Your task to perform on an android device: turn on priority inbox in the gmail app Image 0: 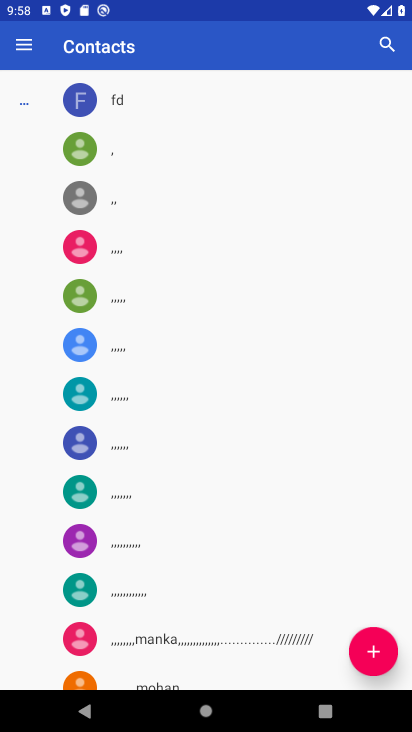
Step 0: press home button
Your task to perform on an android device: turn on priority inbox in the gmail app Image 1: 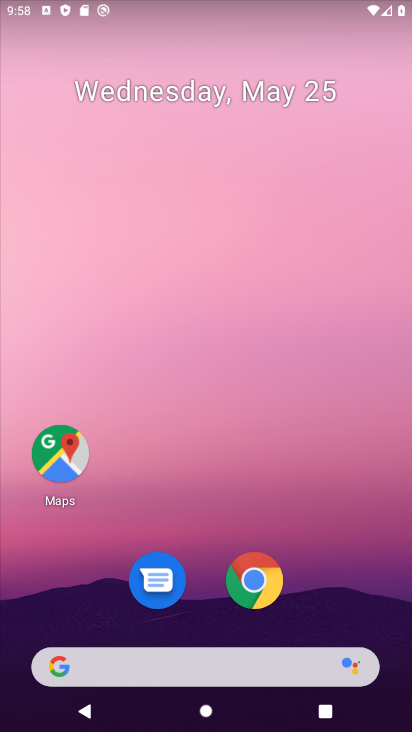
Step 1: drag from (48, 385) to (187, 85)
Your task to perform on an android device: turn on priority inbox in the gmail app Image 2: 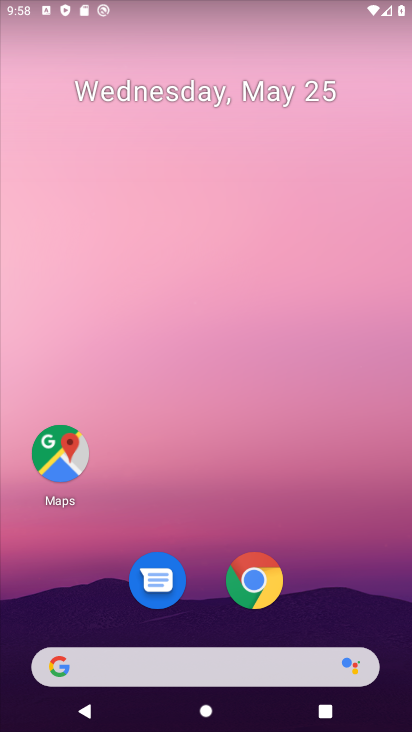
Step 2: drag from (53, 552) to (222, 179)
Your task to perform on an android device: turn on priority inbox in the gmail app Image 3: 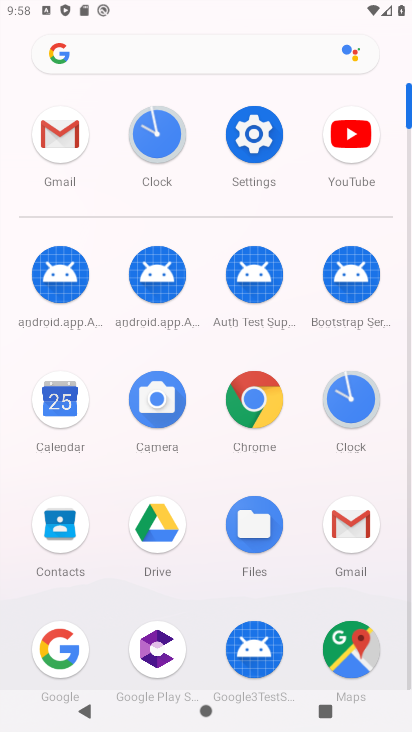
Step 3: click (348, 511)
Your task to perform on an android device: turn on priority inbox in the gmail app Image 4: 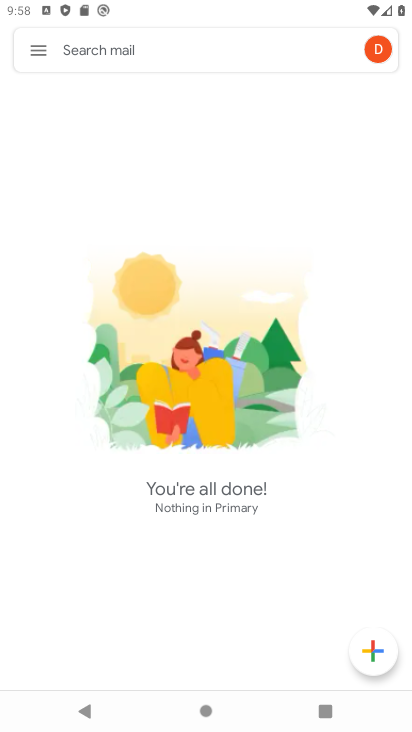
Step 4: click (46, 51)
Your task to perform on an android device: turn on priority inbox in the gmail app Image 5: 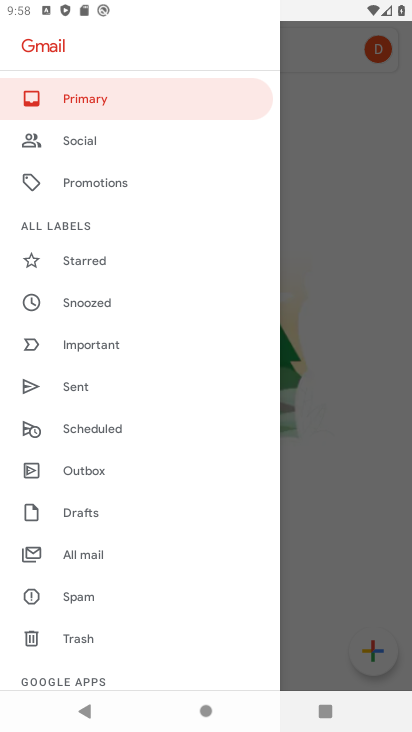
Step 5: drag from (19, 518) to (182, 143)
Your task to perform on an android device: turn on priority inbox in the gmail app Image 6: 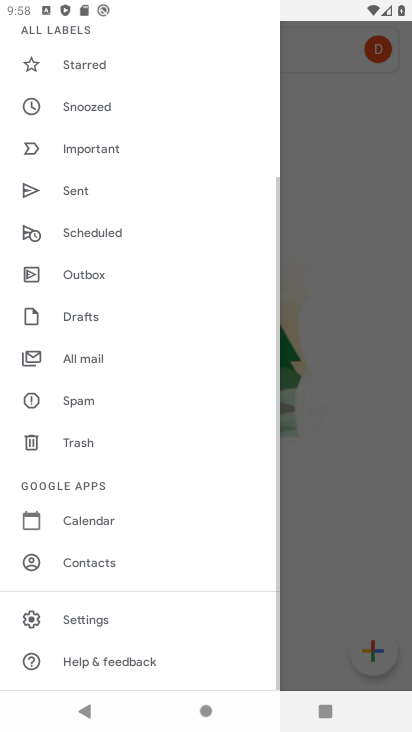
Step 6: click (55, 621)
Your task to perform on an android device: turn on priority inbox in the gmail app Image 7: 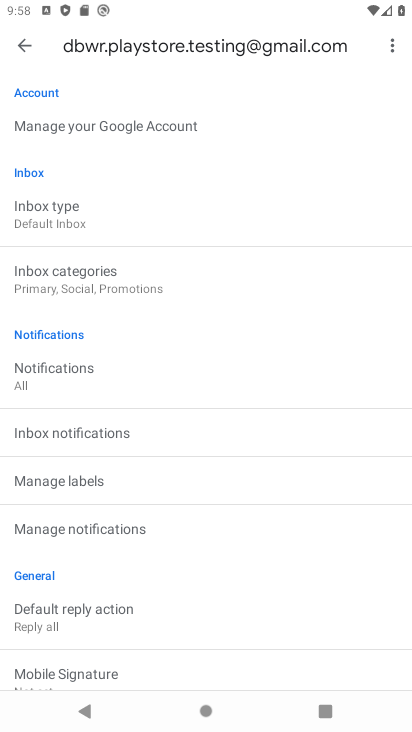
Step 7: click (125, 219)
Your task to perform on an android device: turn on priority inbox in the gmail app Image 8: 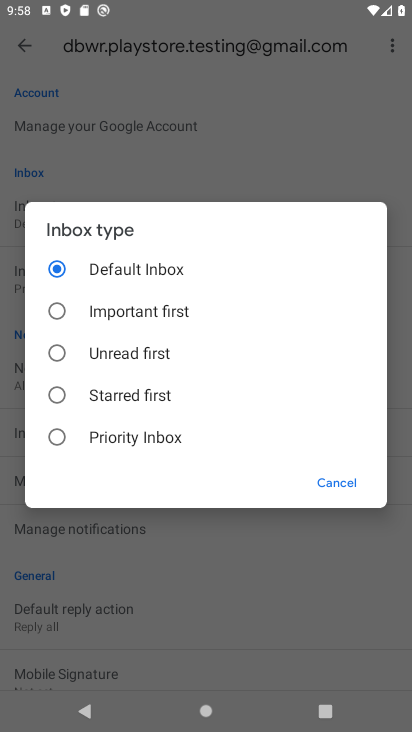
Step 8: click (140, 443)
Your task to perform on an android device: turn on priority inbox in the gmail app Image 9: 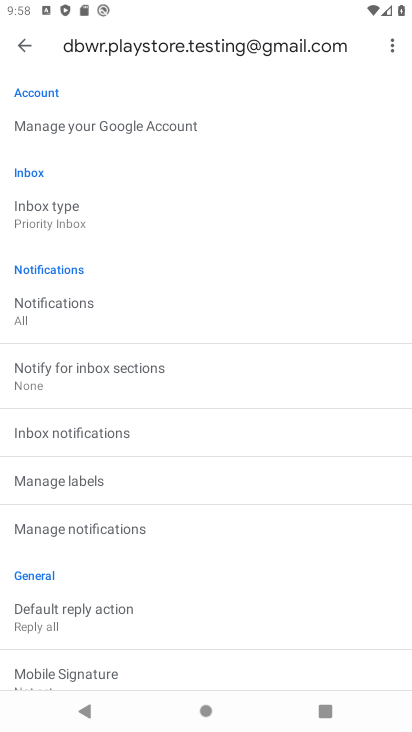
Step 9: task complete